Your task to perform on an android device: Open Google Maps Image 0: 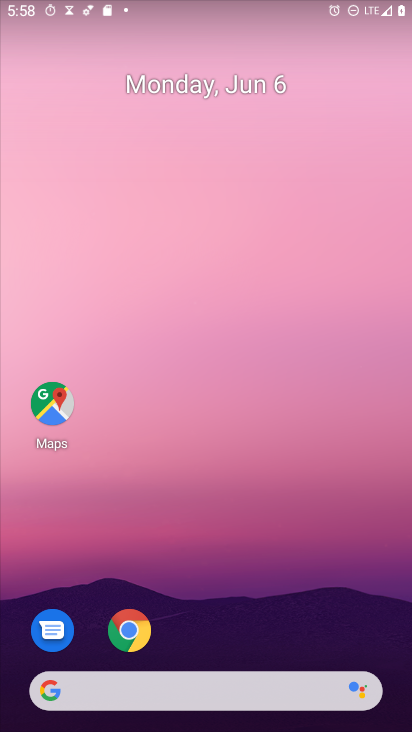
Step 0: click (63, 406)
Your task to perform on an android device: Open Google Maps Image 1: 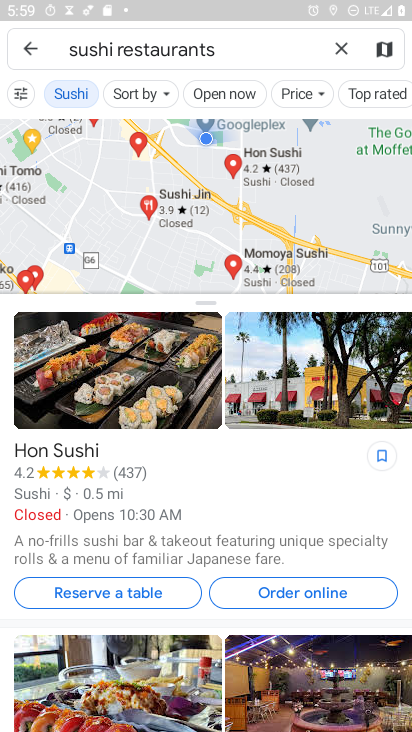
Step 1: task complete